Your task to perform on an android device: open wifi settings Image 0: 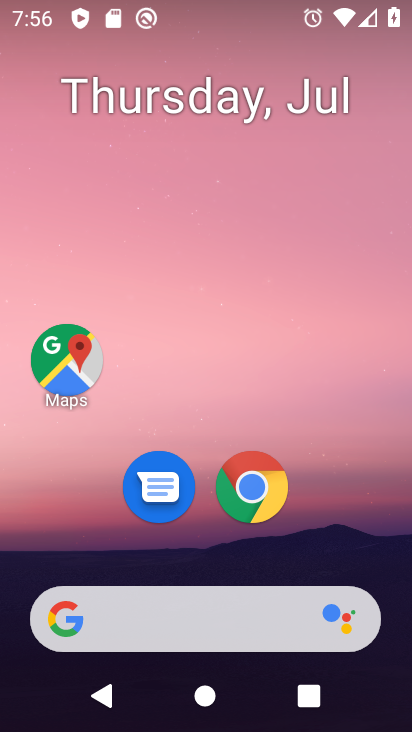
Step 0: drag from (164, 587) to (130, 200)
Your task to perform on an android device: open wifi settings Image 1: 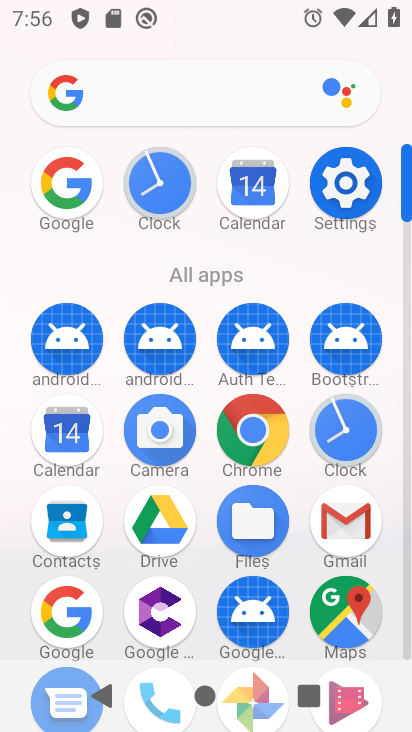
Step 1: click (335, 204)
Your task to perform on an android device: open wifi settings Image 2: 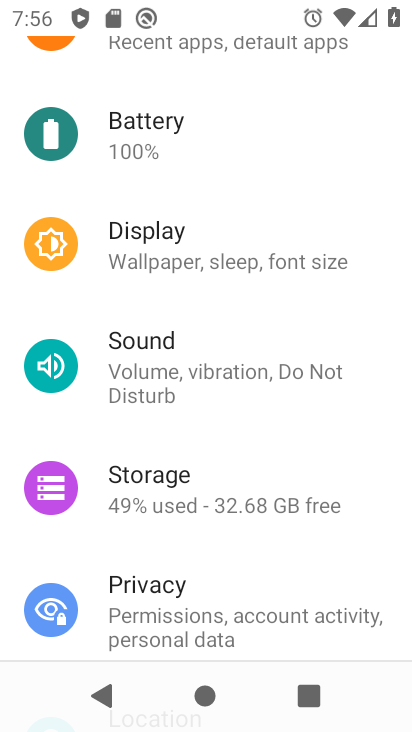
Step 2: drag from (185, 218) to (119, 721)
Your task to perform on an android device: open wifi settings Image 3: 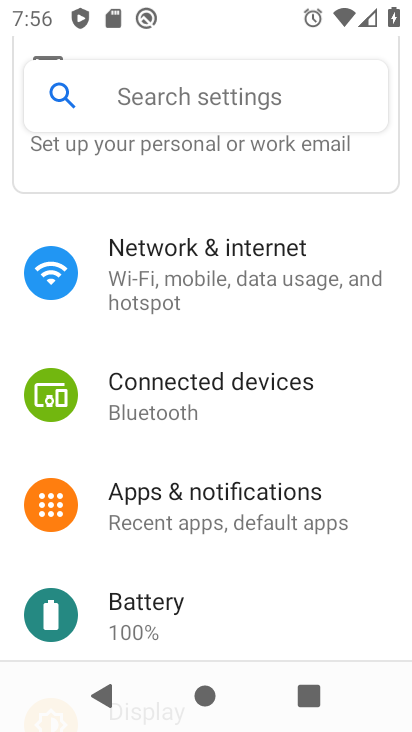
Step 3: drag from (221, 281) to (221, 712)
Your task to perform on an android device: open wifi settings Image 4: 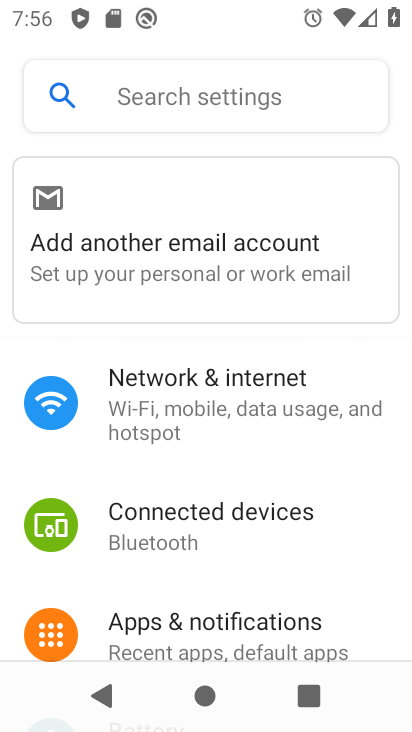
Step 4: click (271, 415)
Your task to perform on an android device: open wifi settings Image 5: 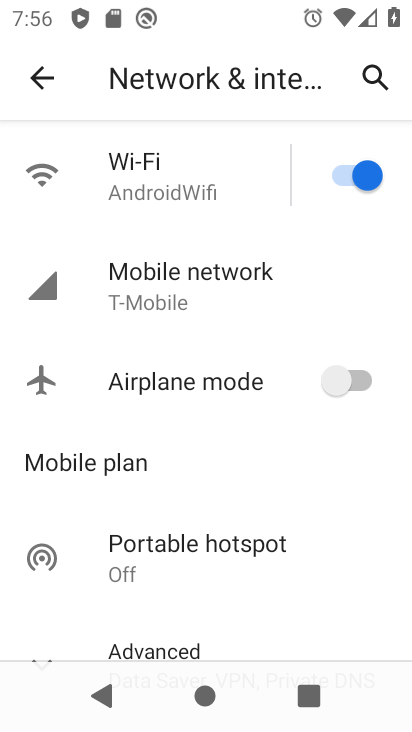
Step 5: click (195, 180)
Your task to perform on an android device: open wifi settings Image 6: 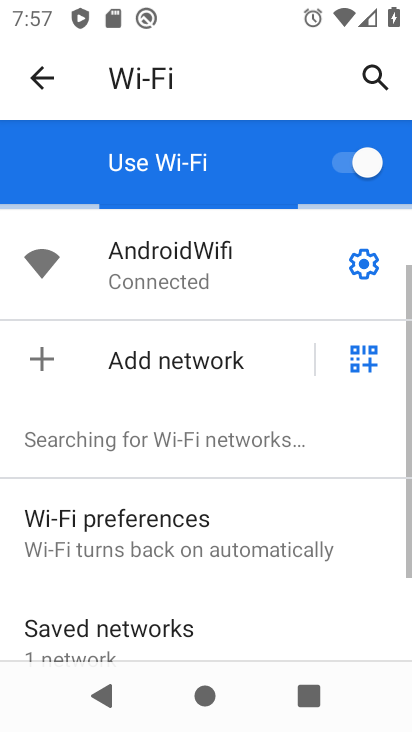
Step 6: task complete